Your task to perform on an android device: Open Yahoo.com Image 0: 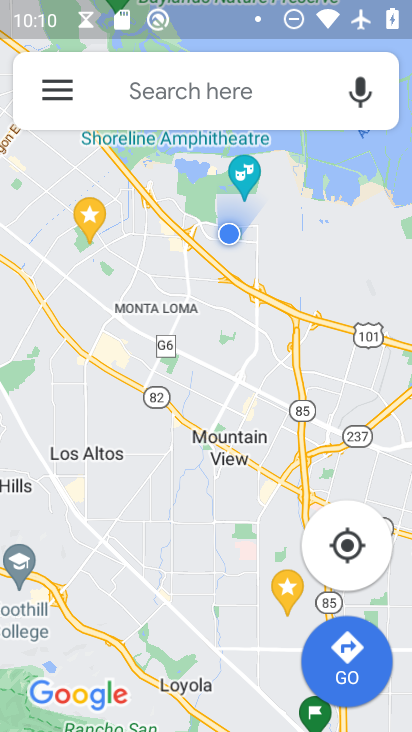
Step 0: press home button
Your task to perform on an android device: Open Yahoo.com Image 1: 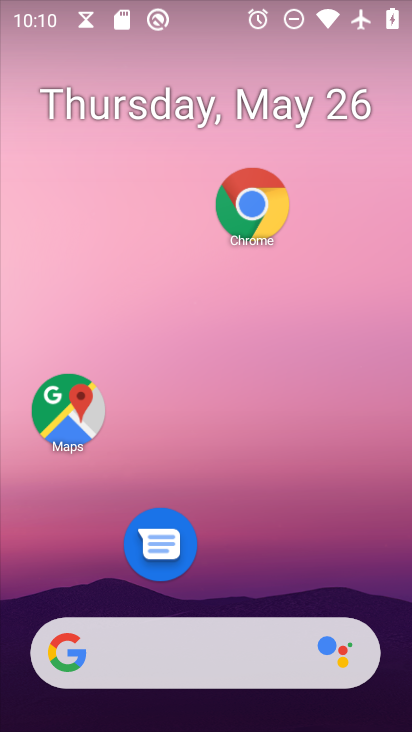
Step 1: click (249, 201)
Your task to perform on an android device: Open Yahoo.com Image 2: 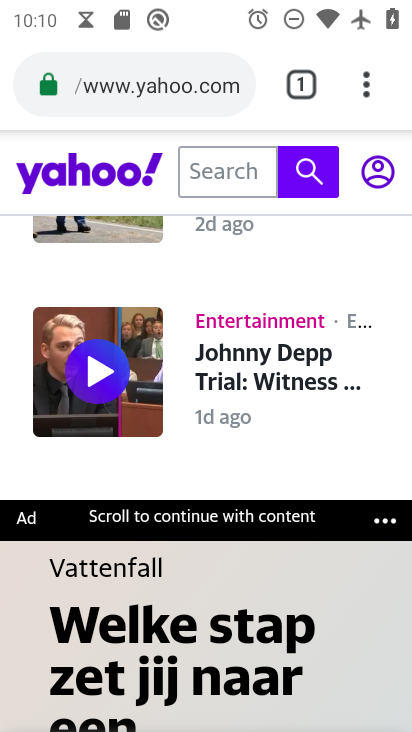
Step 2: task complete